Your task to perform on an android device: delete location history Image 0: 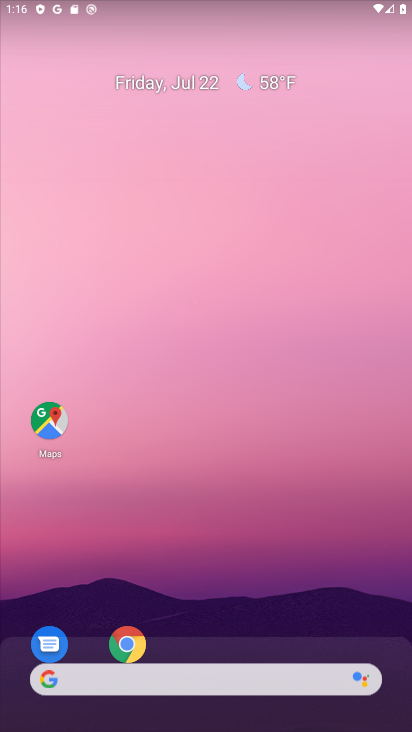
Step 0: drag from (220, 564) to (252, 82)
Your task to perform on an android device: delete location history Image 1: 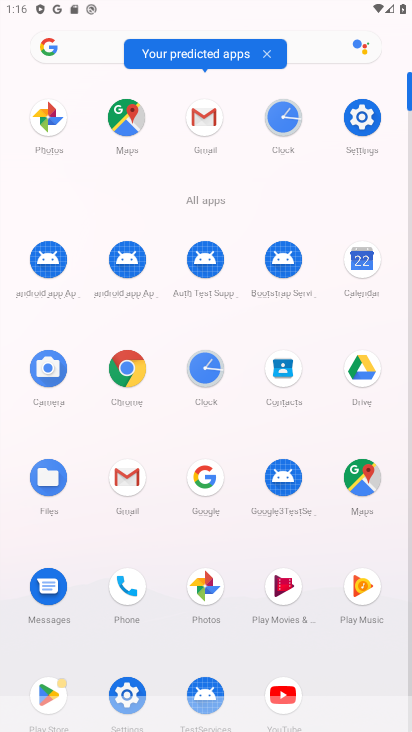
Step 1: click (366, 120)
Your task to perform on an android device: delete location history Image 2: 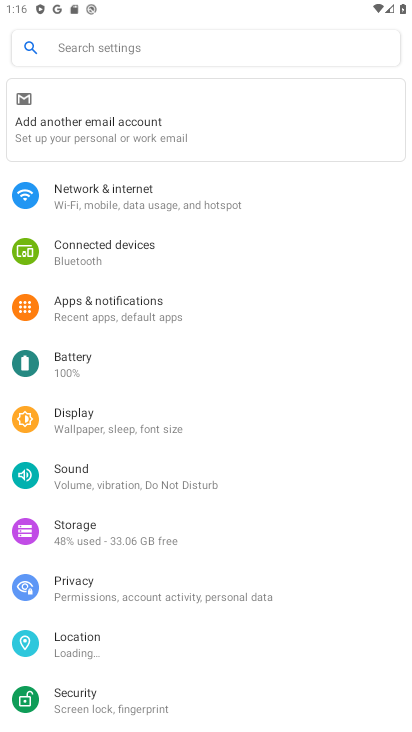
Step 2: click (78, 646)
Your task to perform on an android device: delete location history Image 3: 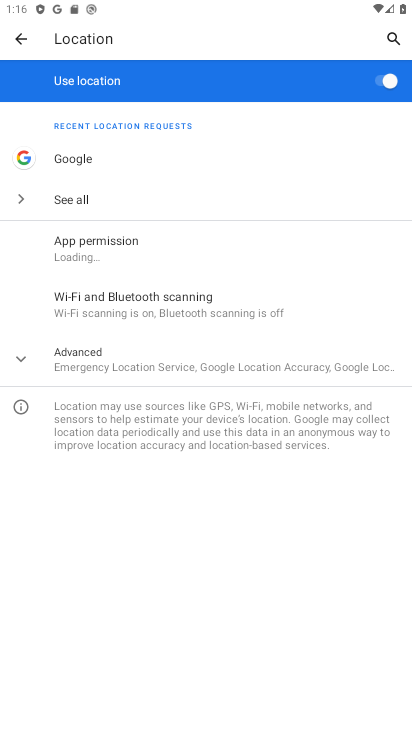
Step 3: click (80, 359)
Your task to perform on an android device: delete location history Image 4: 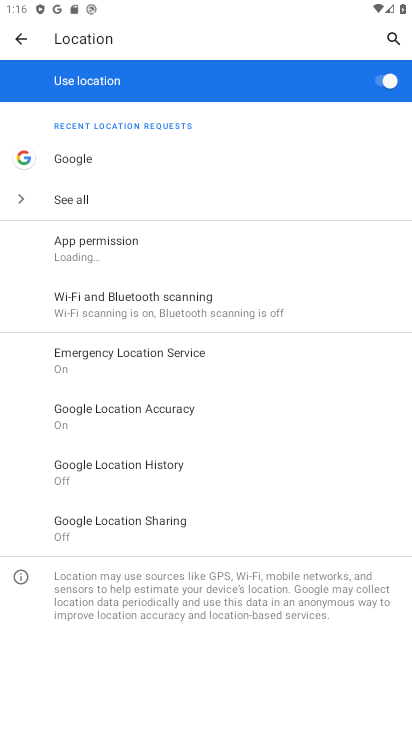
Step 4: click (139, 469)
Your task to perform on an android device: delete location history Image 5: 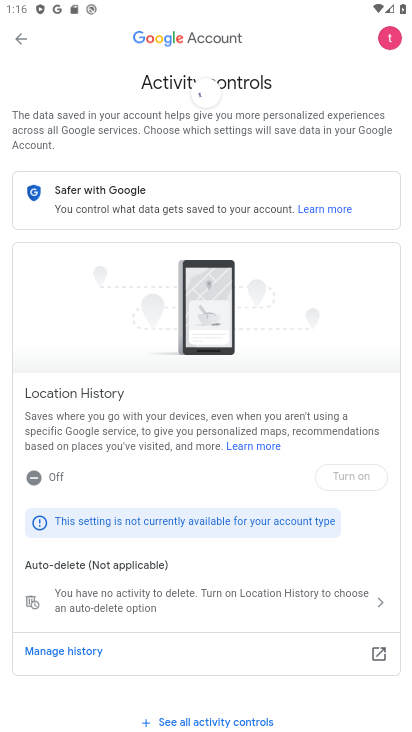
Step 5: drag from (165, 658) to (182, 297)
Your task to perform on an android device: delete location history Image 6: 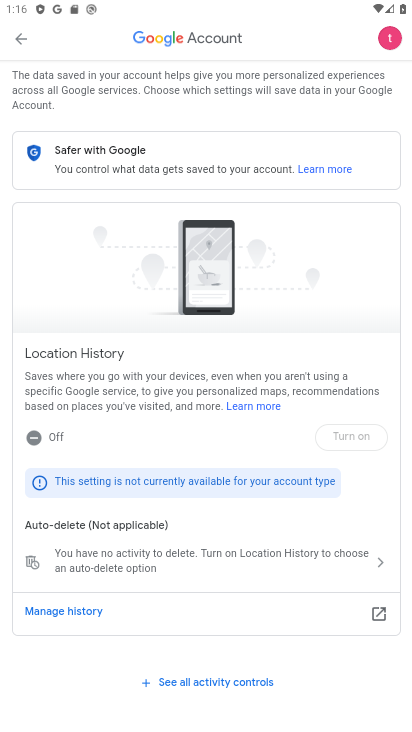
Step 6: click (30, 570)
Your task to perform on an android device: delete location history Image 7: 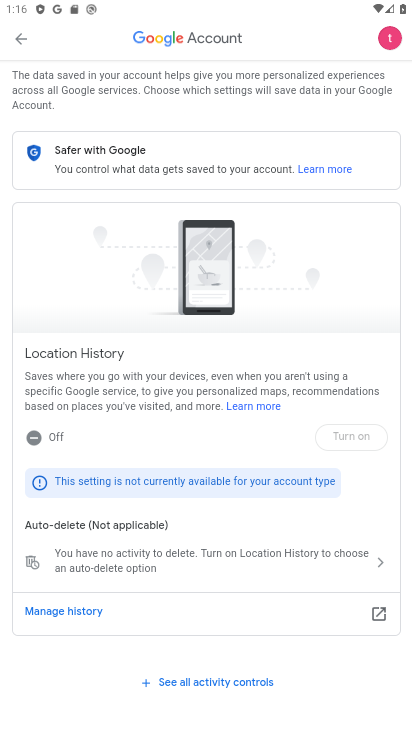
Step 7: click (32, 558)
Your task to perform on an android device: delete location history Image 8: 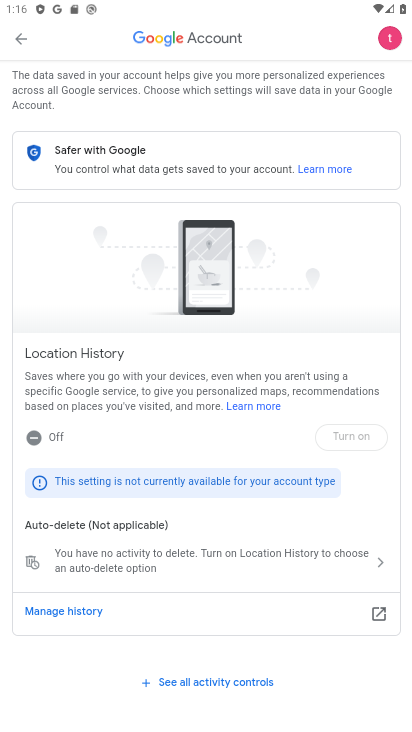
Step 8: click (34, 562)
Your task to perform on an android device: delete location history Image 9: 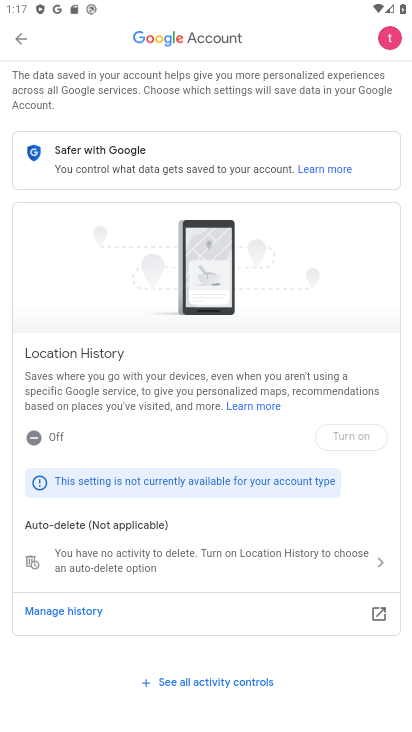
Step 9: task complete